Your task to perform on an android device: Empty the shopping cart on walmart. Search for asus rog on walmart, select the first entry, add it to the cart, then select checkout. Image 0: 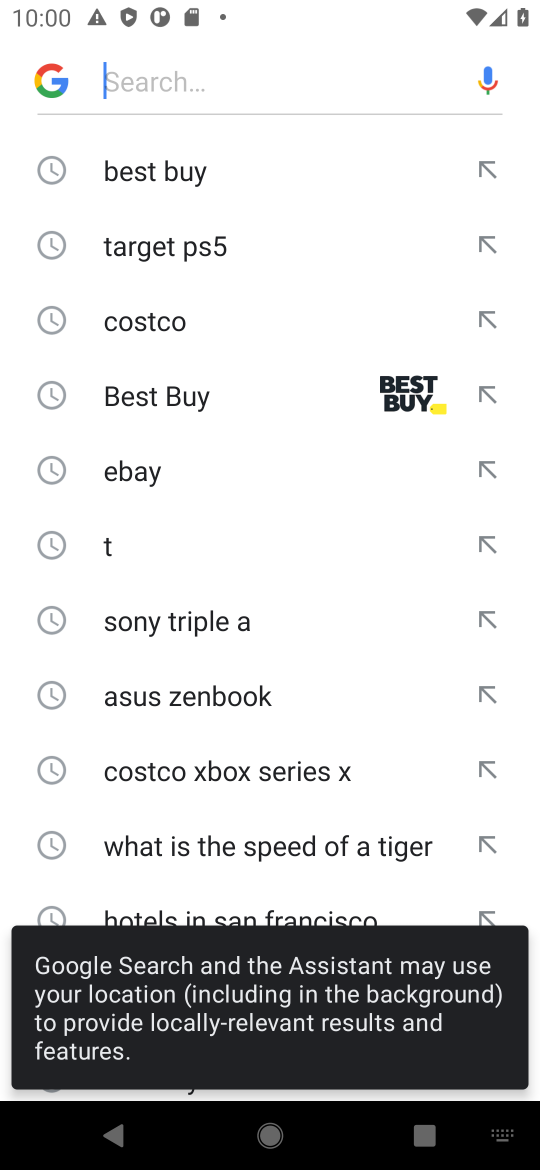
Step 0: press home button
Your task to perform on an android device: Empty the shopping cart on walmart. Search for asus rog on walmart, select the first entry, add it to the cart, then select checkout. Image 1: 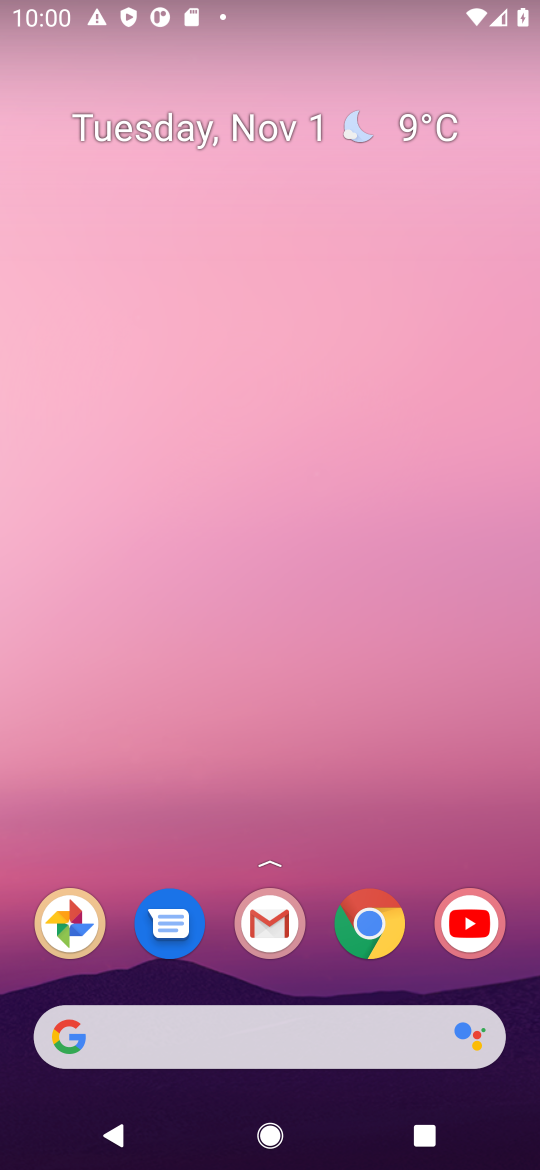
Step 1: drag from (325, 971) to (462, 25)
Your task to perform on an android device: Empty the shopping cart on walmart. Search for asus rog on walmart, select the first entry, add it to the cart, then select checkout. Image 2: 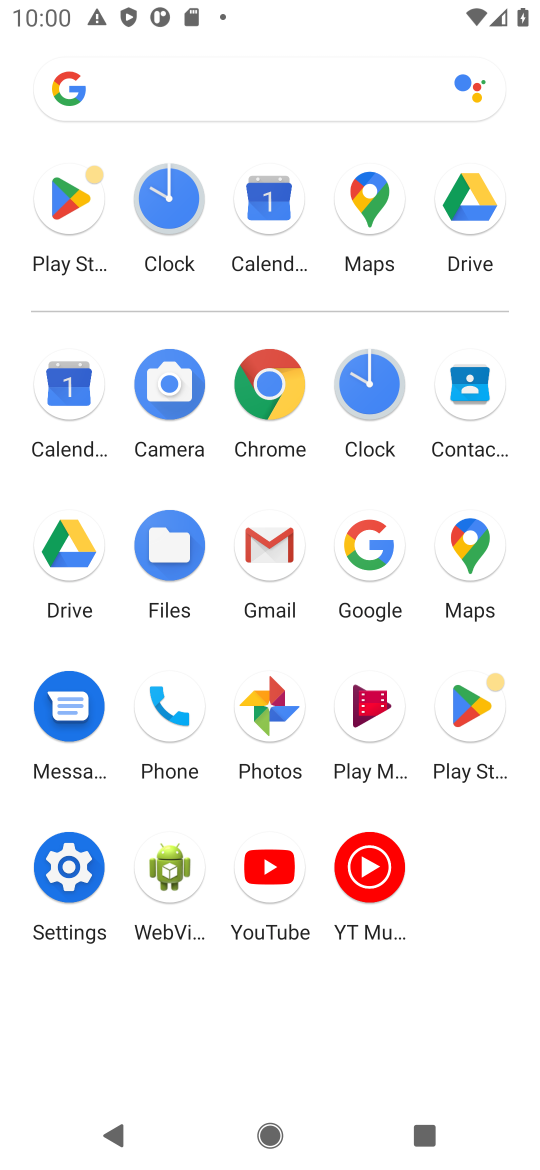
Step 2: click (270, 382)
Your task to perform on an android device: Empty the shopping cart on walmart. Search for asus rog on walmart, select the first entry, add it to the cart, then select checkout. Image 3: 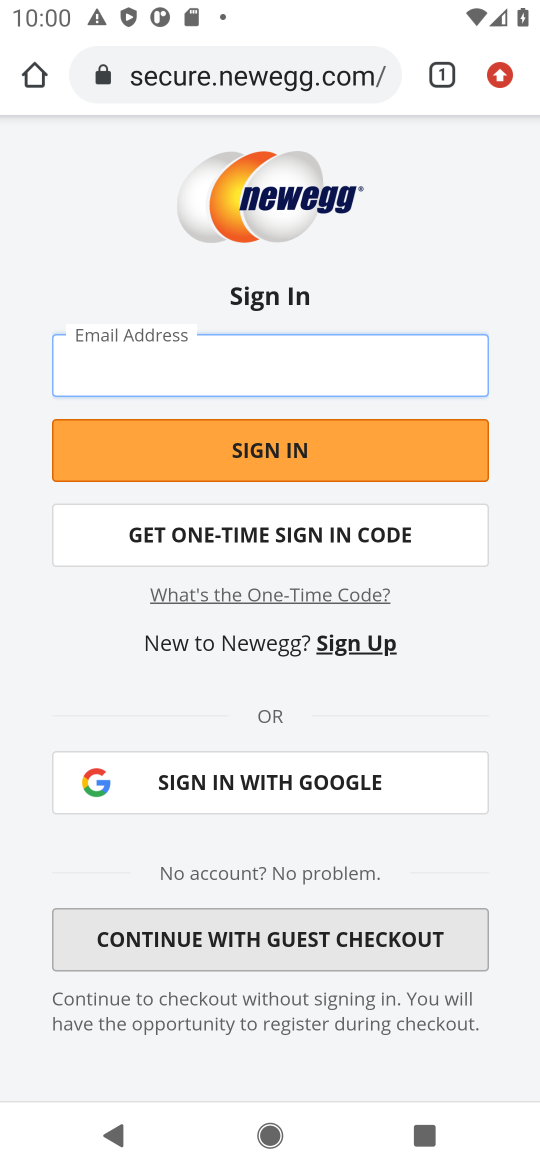
Step 3: click (298, 82)
Your task to perform on an android device: Empty the shopping cart on walmart. Search for asus rog on walmart, select the first entry, add it to the cart, then select checkout. Image 4: 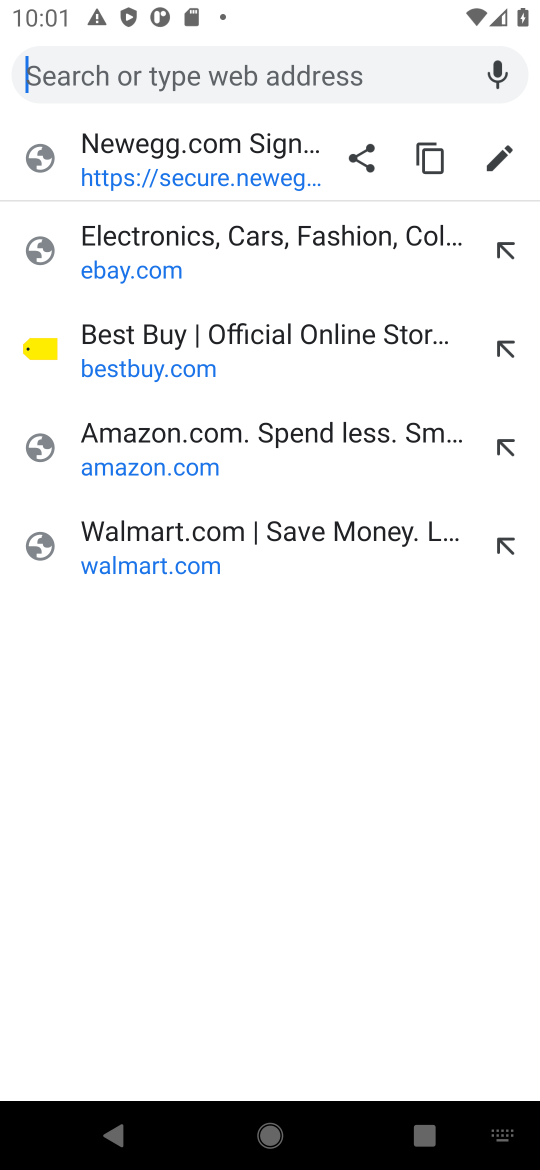
Step 4: type ""
Your task to perform on an android device: Empty the shopping cart on walmart. Search for asus rog on walmart, select the first entry, add it to the cart, then select checkout. Image 5: 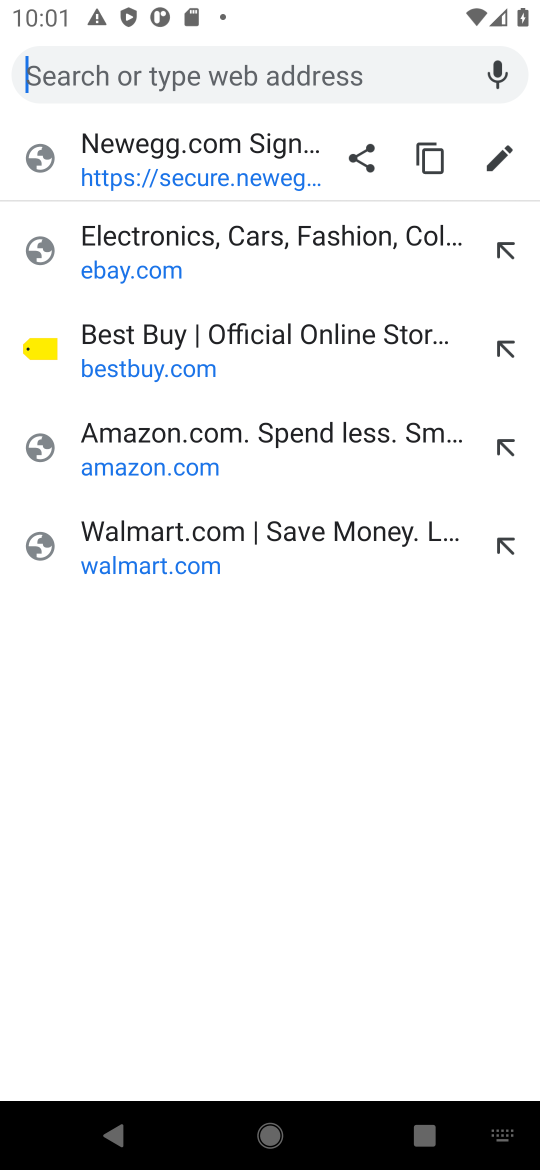
Step 5: type "walmart.com"
Your task to perform on an android device: Empty the shopping cart on walmart. Search for asus rog on walmart, select the first entry, add it to the cart, then select checkout. Image 6: 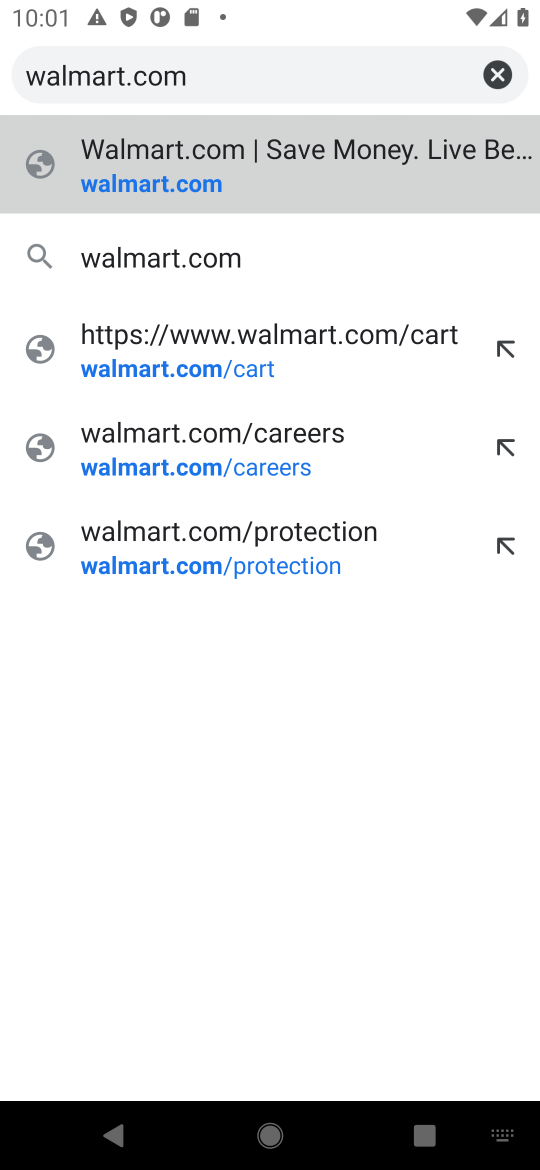
Step 6: press enter
Your task to perform on an android device: Empty the shopping cart on walmart. Search for asus rog on walmart, select the first entry, add it to the cart, then select checkout. Image 7: 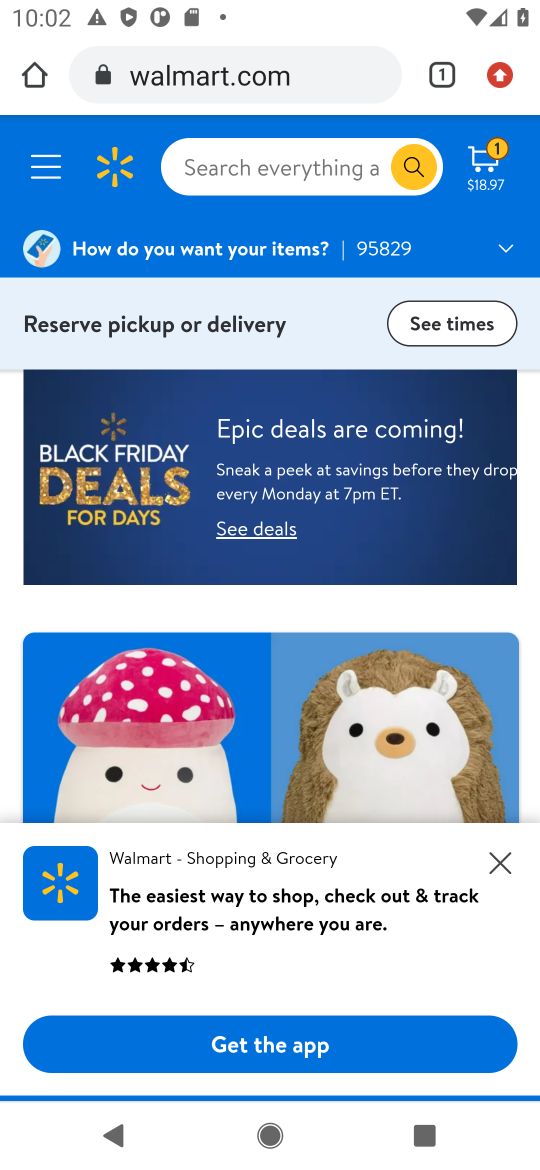
Step 7: click (466, 162)
Your task to perform on an android device: Empty the shopping cart on walmart. Search for asus rog on walmart, select the first entry, add it to the cart, then select checkout. Image 8: 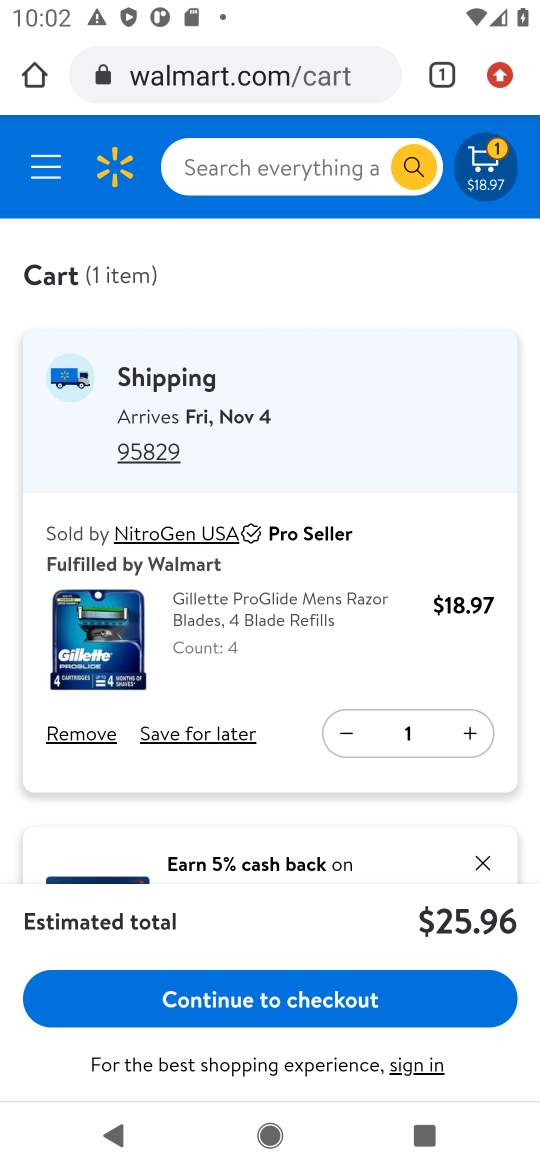
Step 8: click (95, 733)
Your task to perform on an android device: Empty the shopping cart on walmart. Search for asus rog on walmart, select the first entry, add it to the cart, then select checkout. Image 9: 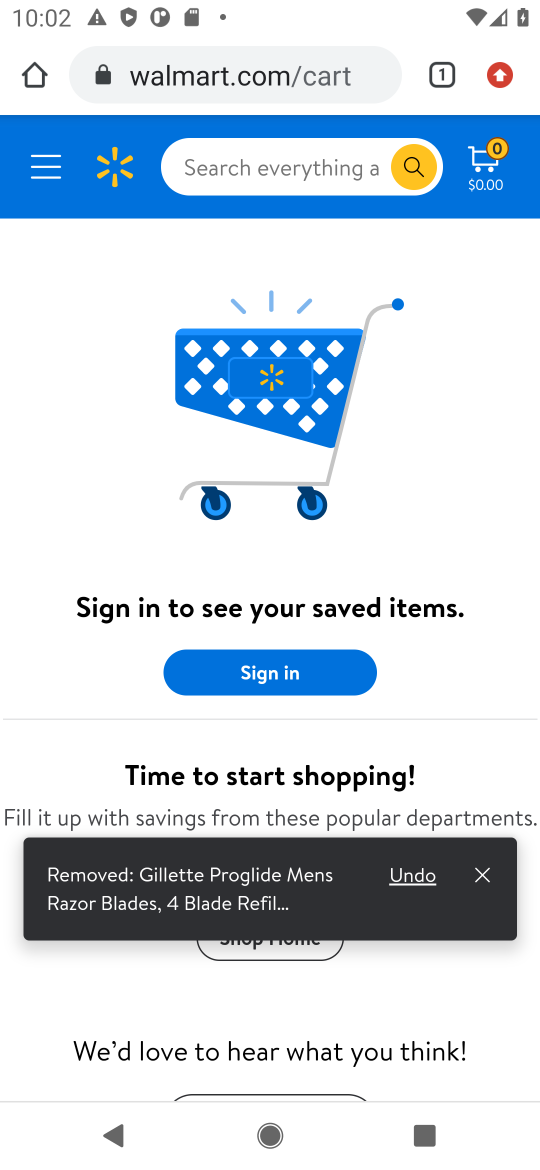
Step 9: click (305, 157)
Your task to perform on an android device: Empty the shopping cart on walmart. Search for asus rog on walmart, select the first entry, add it to the cart, then select checkout. Image 10: 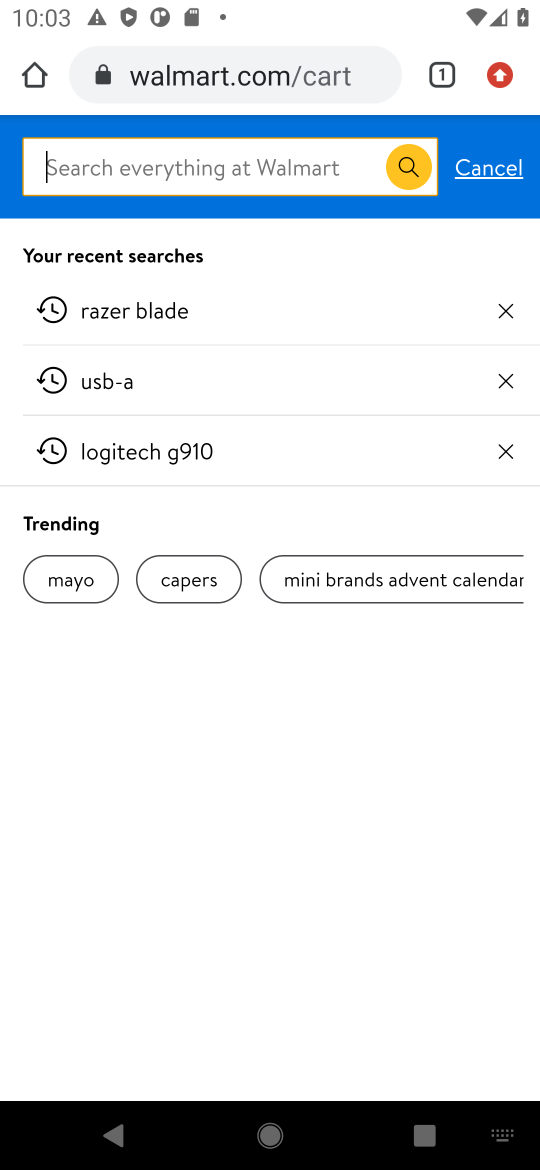
Step 10: type "asus rog"
Your task to perform on an android device: Empty the shopping cart on walmart. Search for asus rog on walmart, select the first entry, add it to the cart, then select checkout. Image 11: 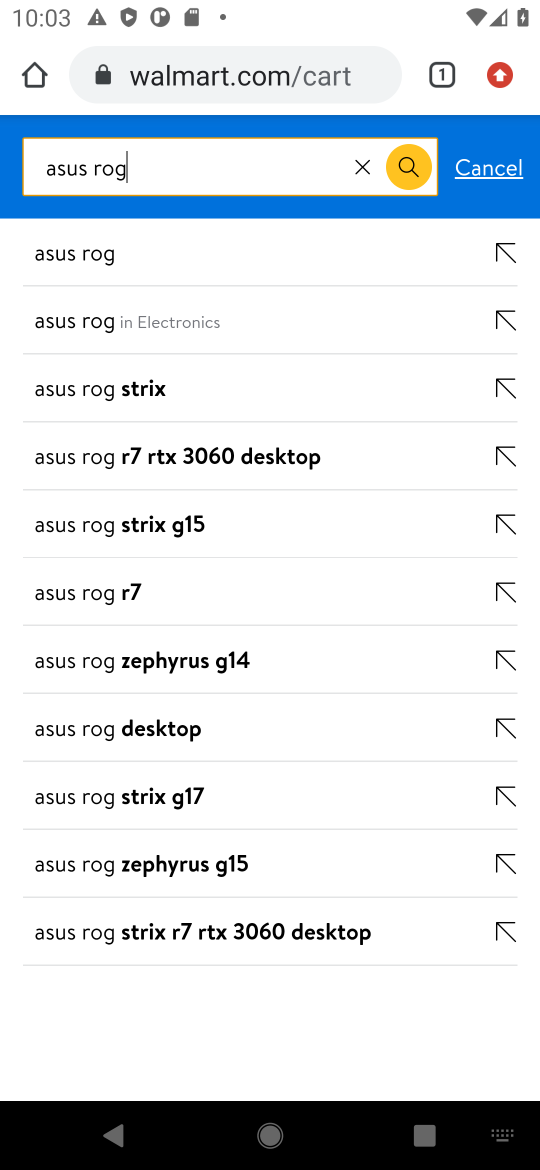
Step 11: press enter
Your task to perform on an android device: Empty the shopping cart on walmart. Search for asus rog on walmart, select the first entry, add it to the cart, then select checkout. Image 12: 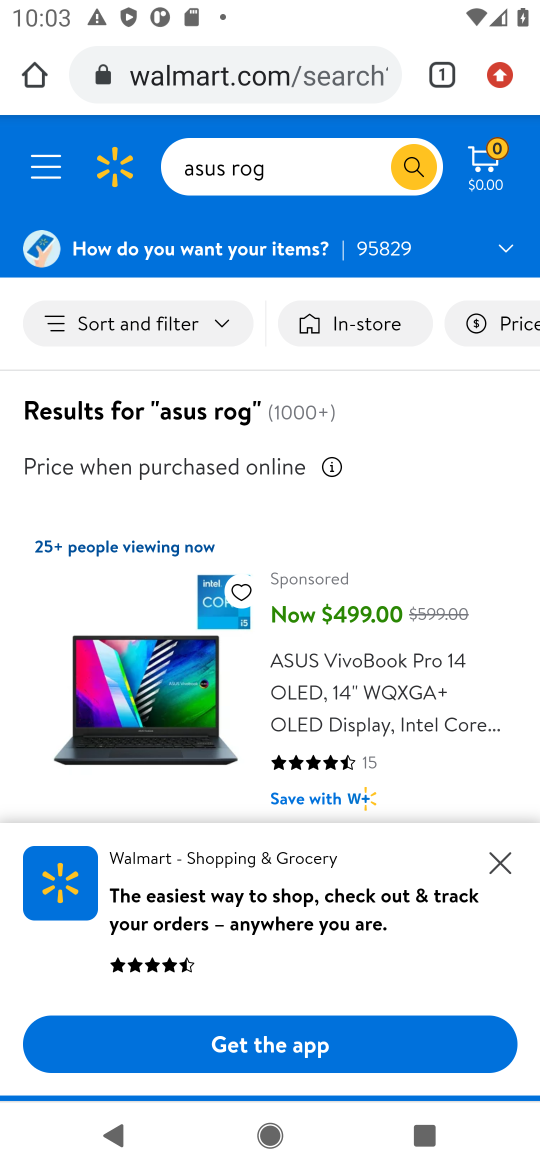
Step 12: drag from (270, 761) to (294, 343)
Your task to perform on an android device: Empty the shopping cart on walmart. Search for asus rog on walmart, select the first entry, add it to the cart, then select checkout. Image 13: 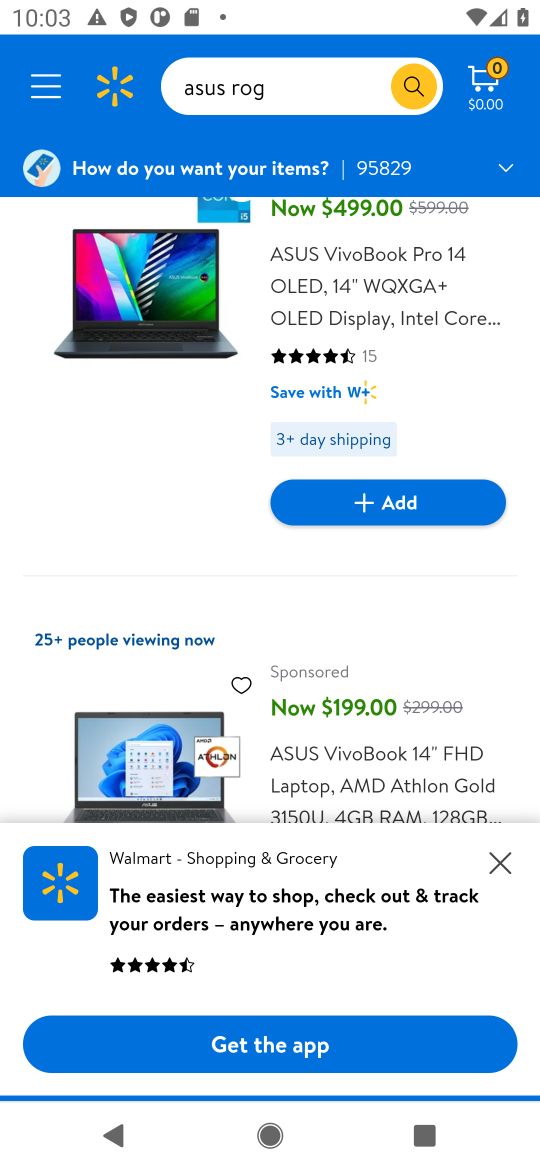
Step 13: drag from (349, 783) to (334, 241)
Your task to perform on an android device: Empty the shopping cart on walmart. Search for asus rog on walmart, select the first entry, add it to the cart, then select checkout. Image 14: 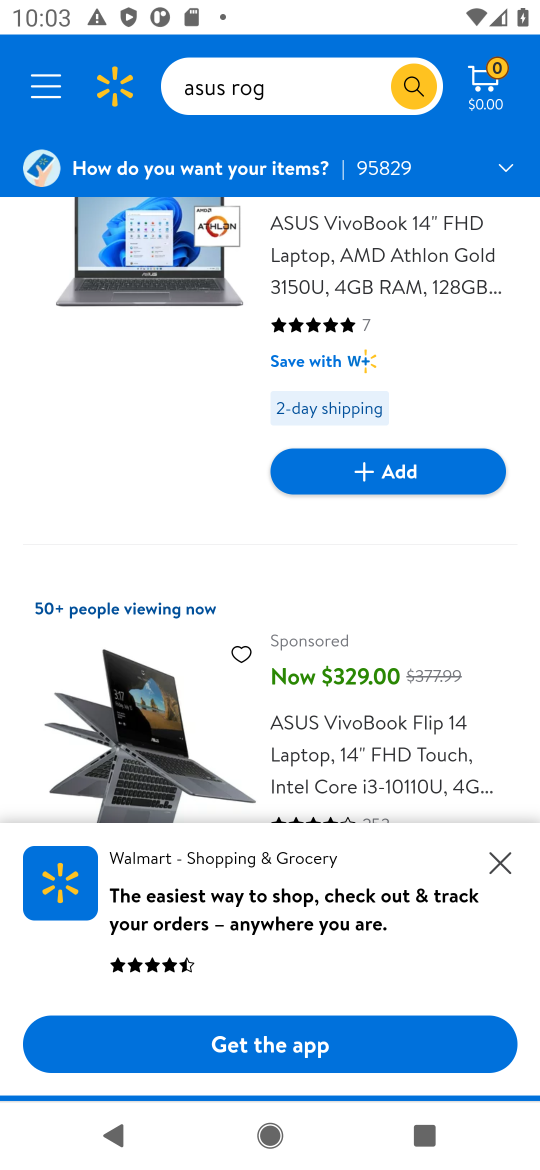
Step 14: drag from (210, 731) to (218, 290)
Your task to perform on an android device: Empty the shopping cart on walmart. Search for asus rog on walmart, select the first entry, add it to the cart, then select checkout. Image 15: 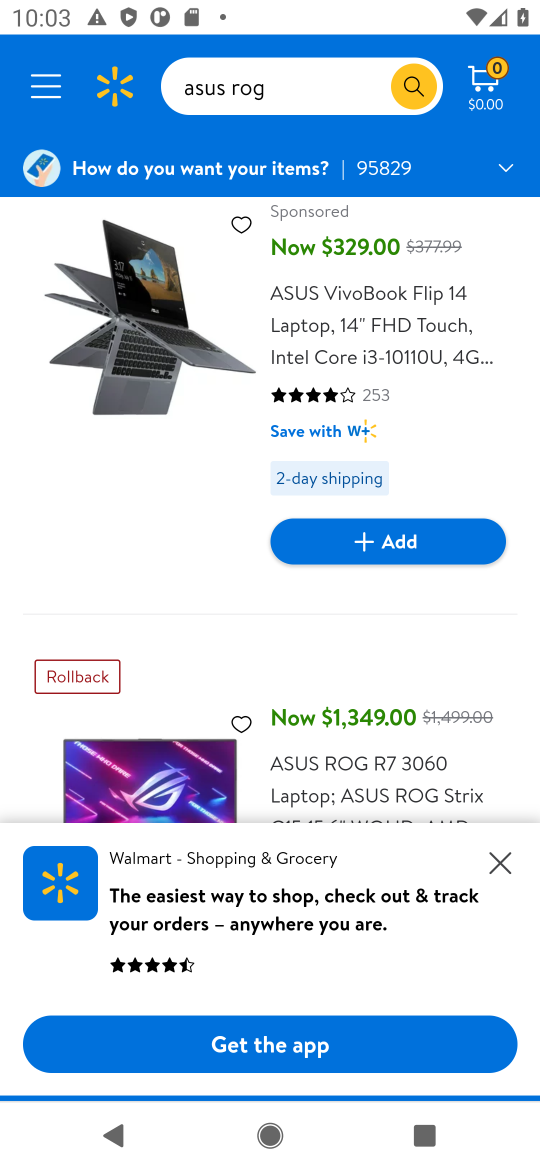
Step 15: drag from (222, 739) to (224, 212)
Your task to perform on an android device: Empty the shopping cart on walmart. Search for asus rog on walmart, select the first entry, add it to the cart, then select checkout. Image 16: 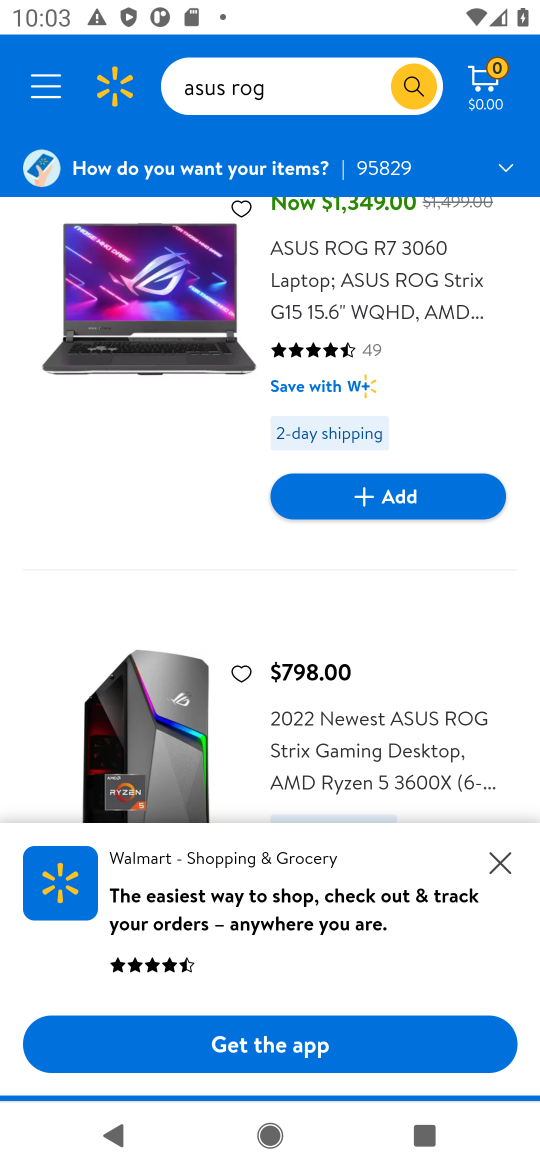
Step 16: click (406, 507)
Your task to perform on an android device: Empty the shopping cart on walmart. Search for asus rog on walmart, select the first entry, add it to the cart, then select checkout. Image 17: 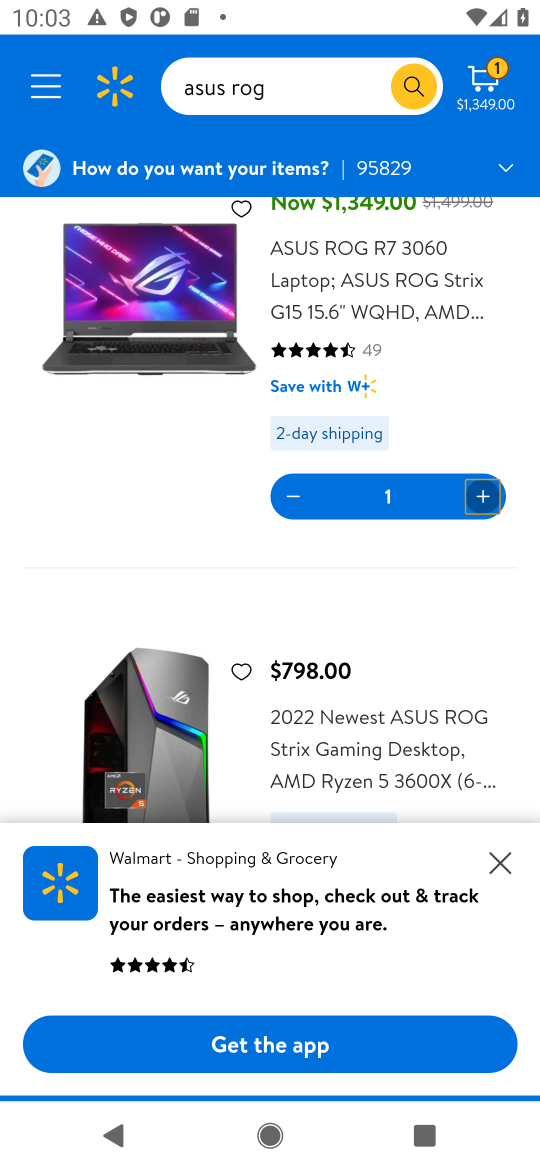
Step 17: click (478, 80)
Your task to perform on an android device: Empty the shopping cart on walmart. Search for asus rog on walmart, select the first entry, add it to the cart, then select checkout. Image 18: 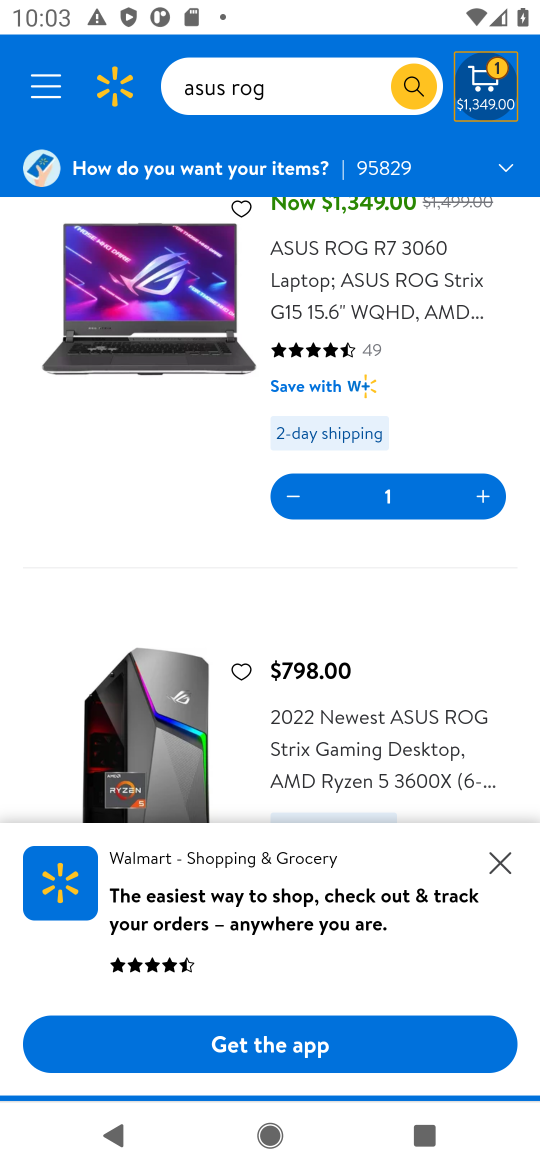
Step 18: click (480, 93)
Your task to perform on an android device: Empty the shopping cart on walmart. Search for asus rog on walmart, select the first entry, add it to the cart, then select checkout. Image 19: 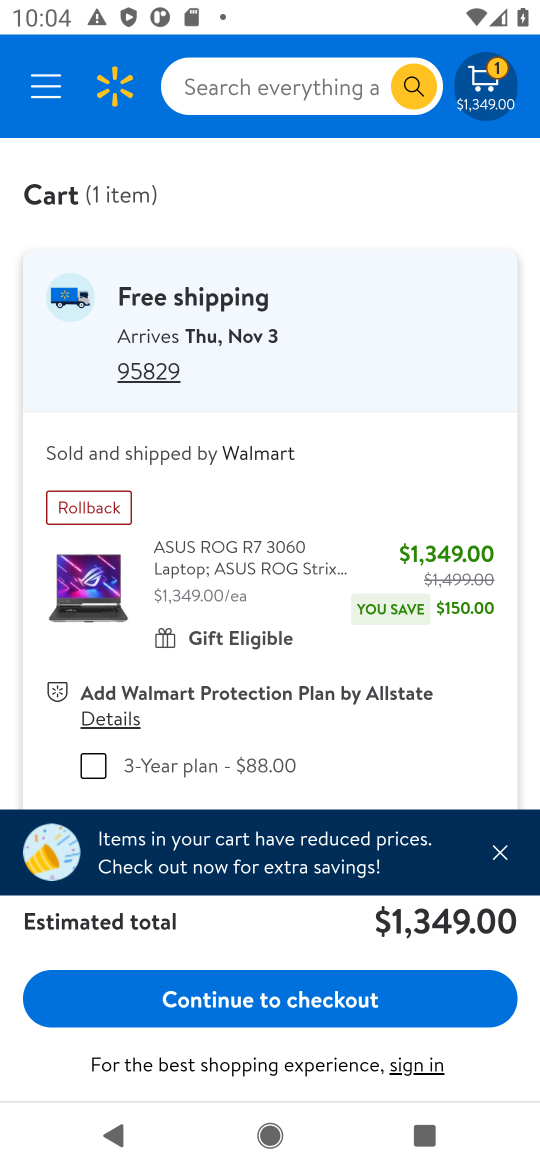
Step 19: click (348, 999)
Your task to perform on an android device: Empty the shopping cart on walmart. Search for asus rog on walmart, select the first entry, add it to the cart, then select checkout. Image 20: 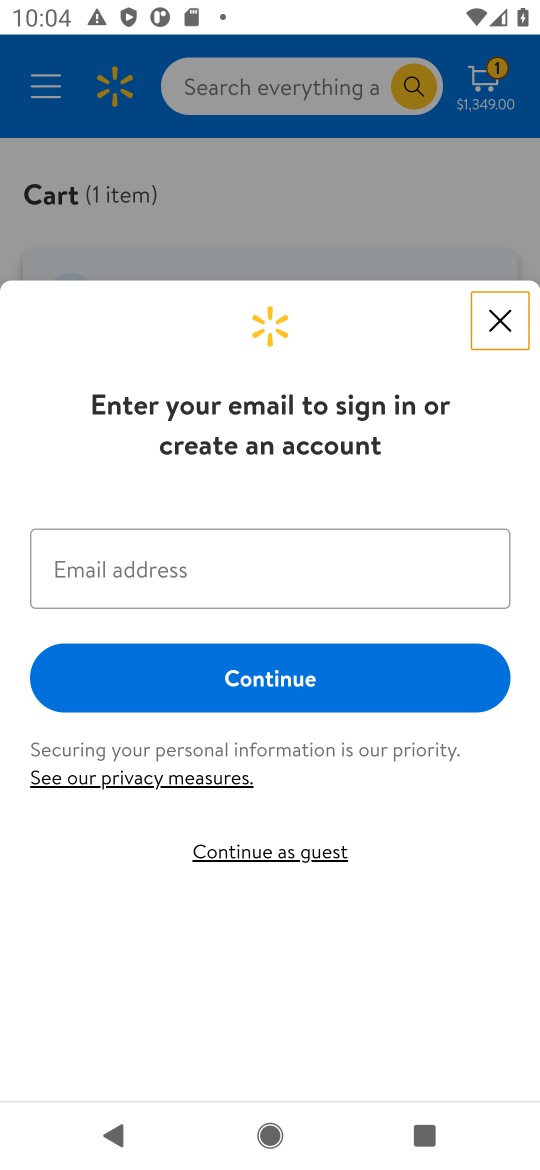
Step 20: task complete